Your task to perform on an android device: turn pop-ups off in chrome Image 0: 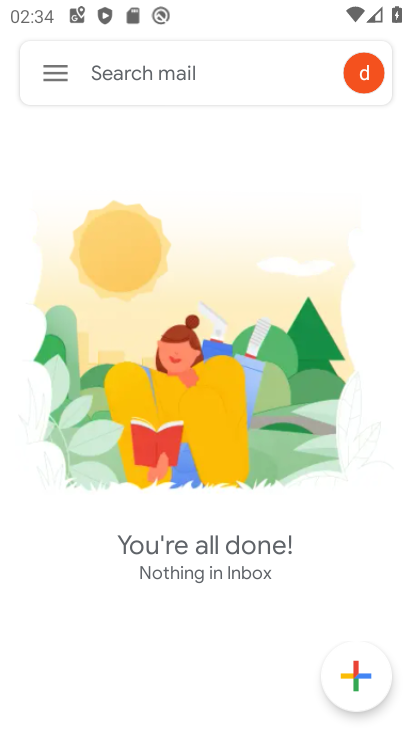
Step 0: press home button
Your task to perform on an android device: turn pop-ups off in chrome Image 1: 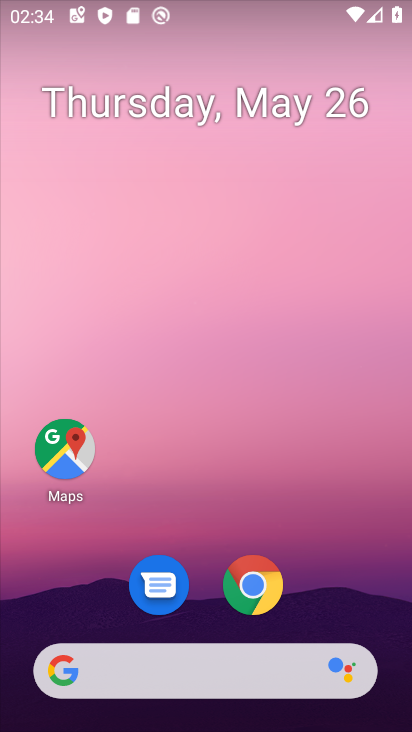
Step 1: click (260, 580)
Your task to perform on an android device: turn pop-ups off in chrome Image 2: 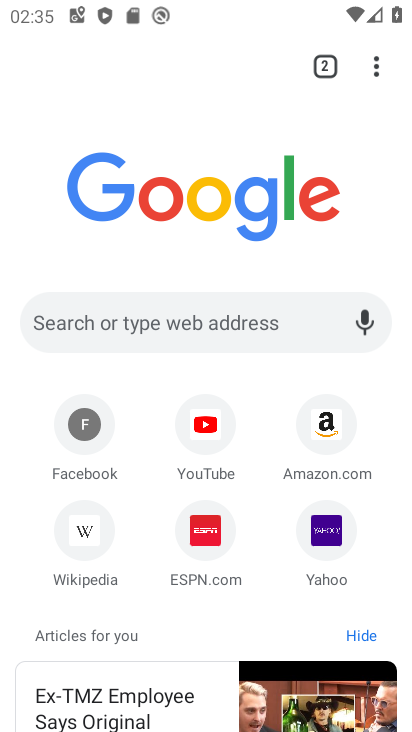
Step 2: click (372, 60)
Your task to perform on an android device: turn pop-ups off in chrome Image 3: 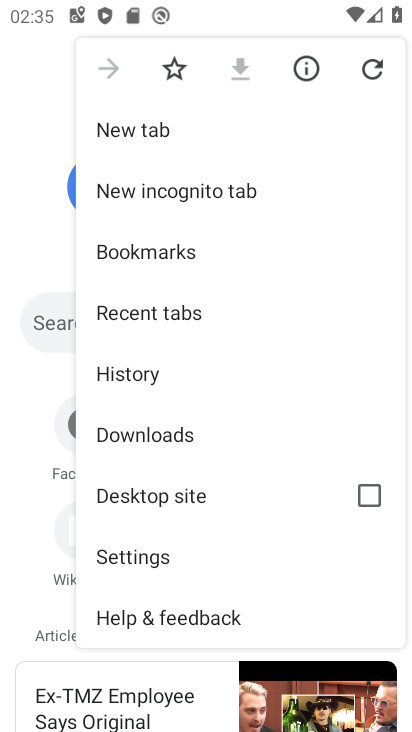
Step 3: click (169, 545)
Your task to perform on an android device: turn pop-ups off in chrome Image 4: 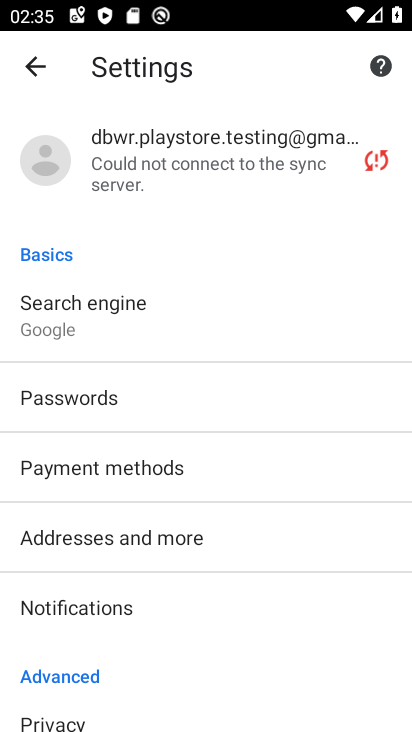
Step 4: drag from (261, 547) to (277, 312)
Your task to perform on an android device: turn pop-ups off in chrome Image 5: 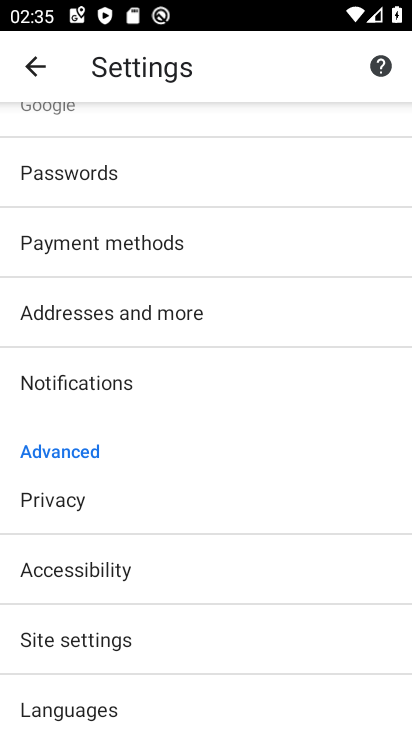
Step 5: click (204, 642)
Your task to perform on an android device: turn pop-ups off in chrome Image 6: 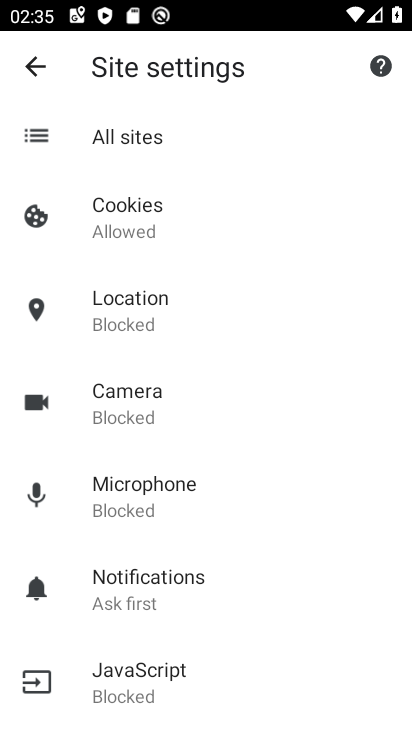
Step 6: drag from (245, 586) to (250, 316)
Your task to perform on an android device: turn pop-ups off in chrome Image 7: 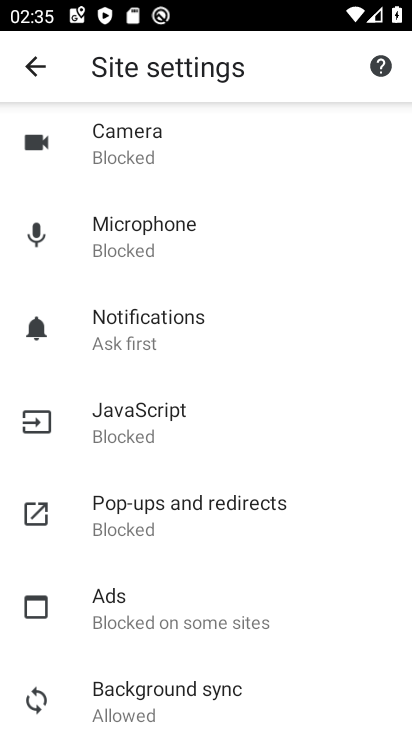
Step 7: click (230, 499)
Your task to perform on an android device: turn pop-ups off in chrome Image 8: 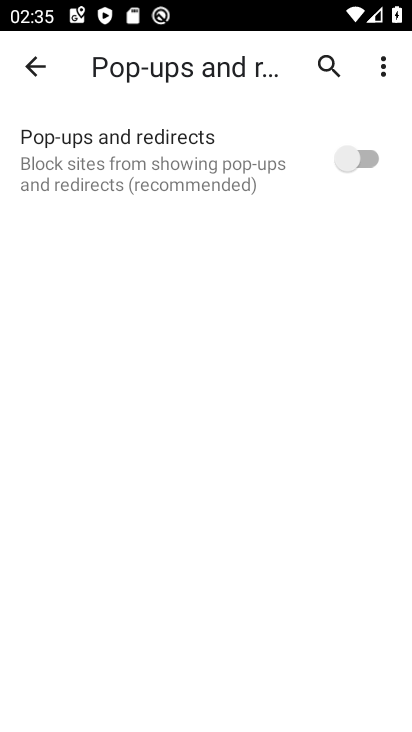
Step 8: task complete